Your task to perform on an android device: change notification settings in the gmail app Image 0: 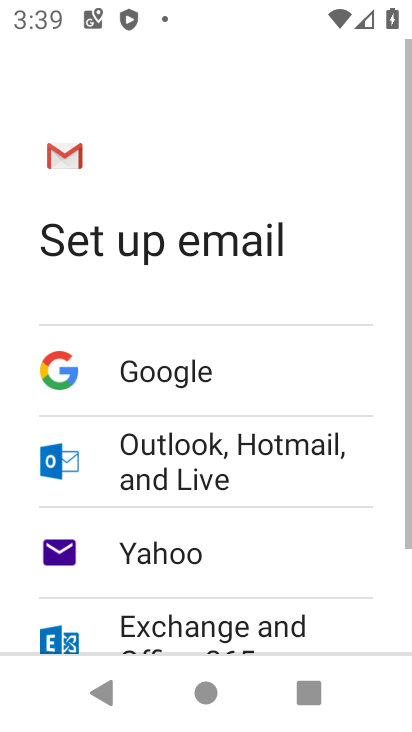
Step 0: press home button
Your task to perform on an android device: change notification settings in the gmail app Image 1: 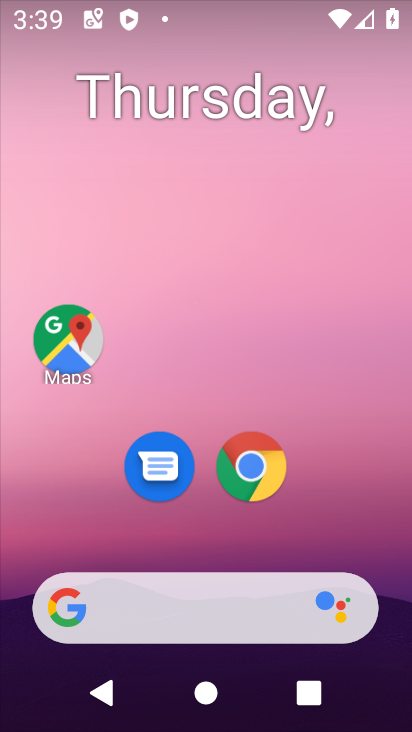
Step 1: drag from (306, 577) to (268, 16)
Your task to perform on an android device: change notification settings in the gmail app Image 2: 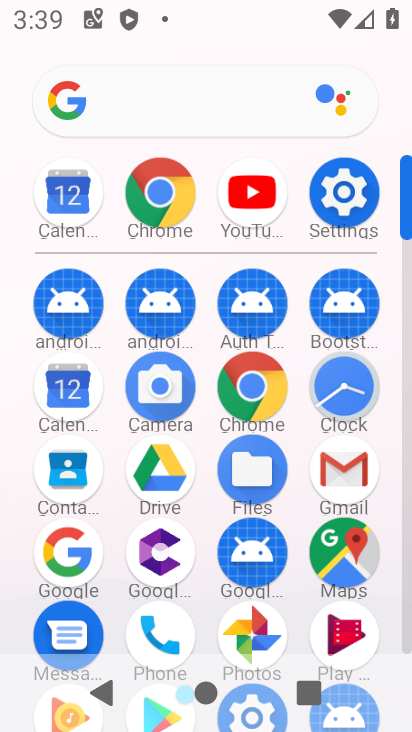
Step 2: click (351, 466)
Your task to perform on an android device: change notification settings in the gmail app Image 3: 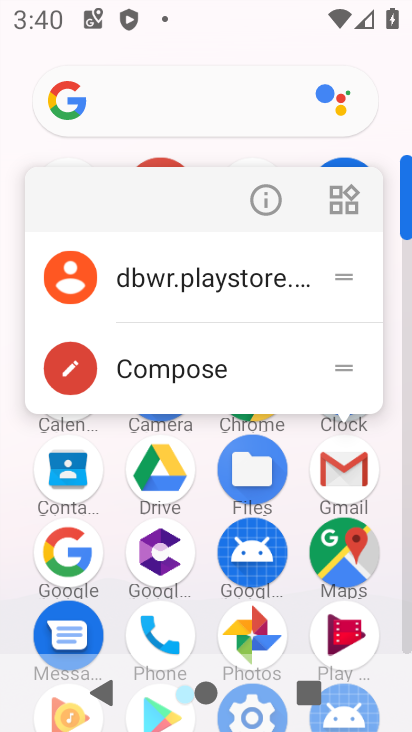
Step 3: click (364, 483)
Your task to perform on an android device: change notification settings in the gmail app Image 4: 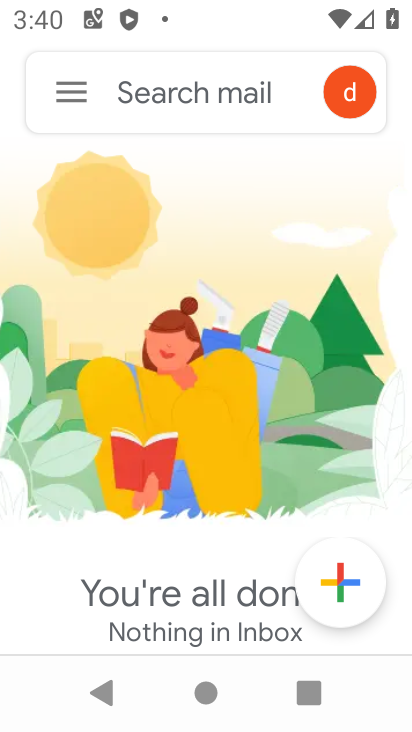
Step 4: click (74, 90)
Your task to perform on an android device: change notification settings in the gmail app Image 5: 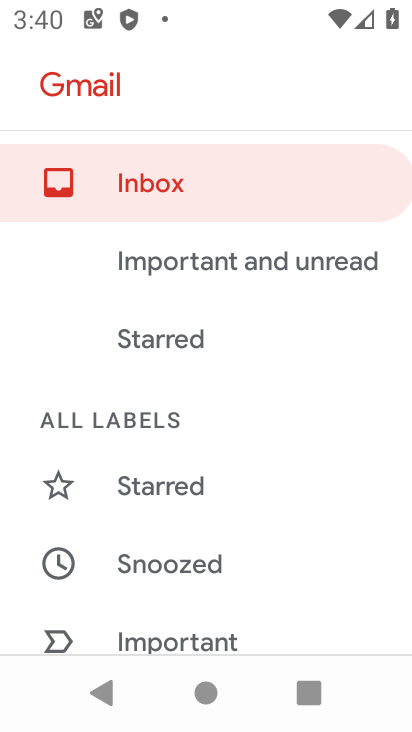
Step 5: drag from (189, 626) to (229, 59)
Your task to perform on an android device: change notification settings in the gmail app Image 6: 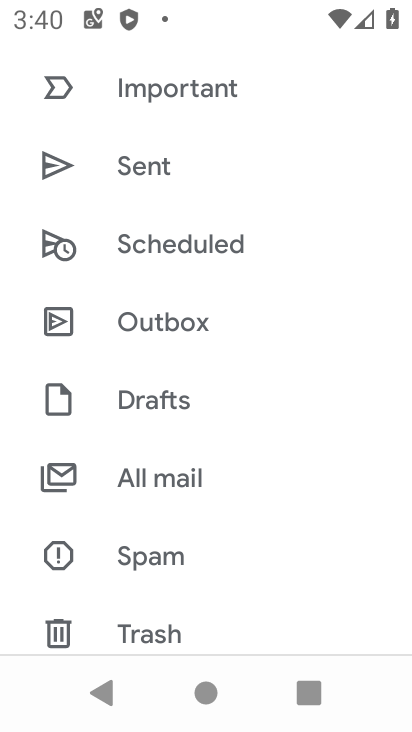
Step 6: drag from (226, 639) to (206, 160)
Your task to perform on an android device: change notification settings in the gmail app Image 7: 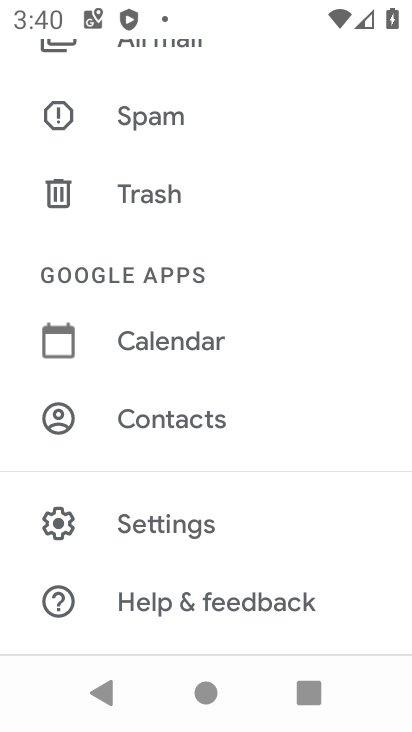
Step 7: click (221, 528)
Your task to perform on an android device: change notification settings in the gmail app Image 8: 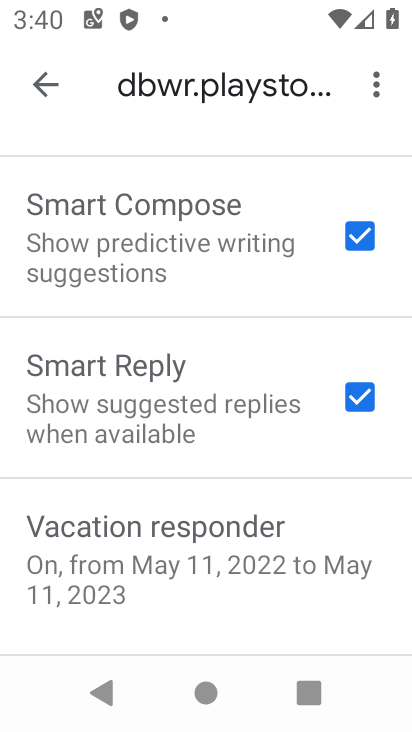
Step 8: drag from (191, 225) to (197, 713)
Your task to perform on an android device: change notification settings in the gmail app Image 9: 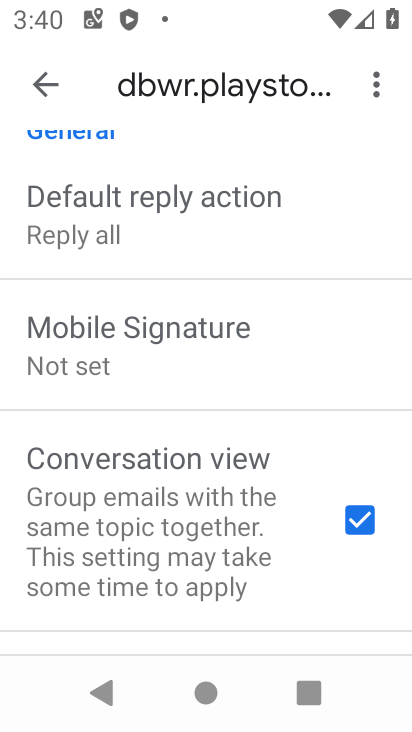
Step 9: drag from (209, 238) to (208, 620)
Your task to perform on an android device: change notification settings in the gmail app Image 10: 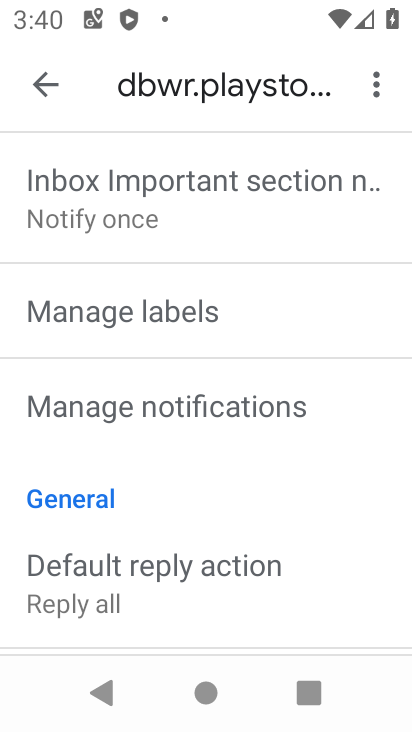
Step 10: click (191, 411)
Your task to perform on an android device: change notification settings in the gmail app Image 11: 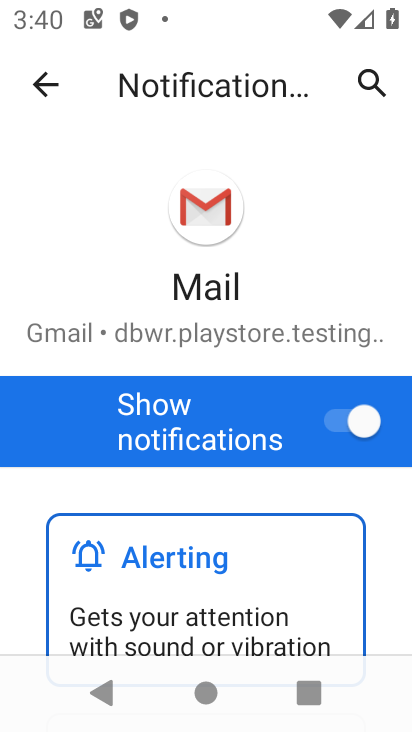
Step 11: click (342, 416)
Your task to perform on an android device: change notification settings in the gmail app Image 12: 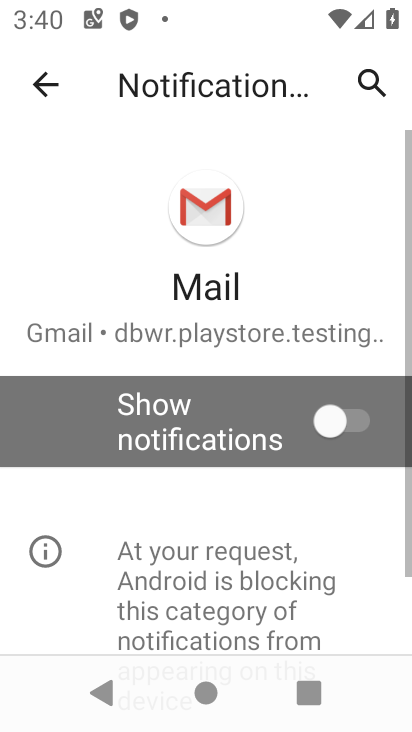
Step 12: task complete